Your task to perform on an android device: toggle notification dots Image 0: 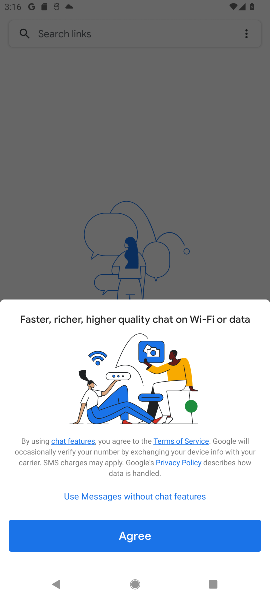
Step 0: press back button
Your task to perform on an android device: toggle notification dots Image 1: 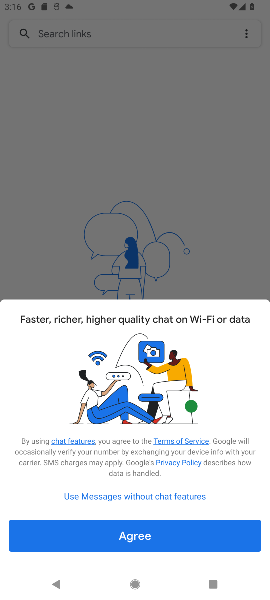
Step 1: press back button
Your task to perform on an android device: toggle notification dots Image 2: 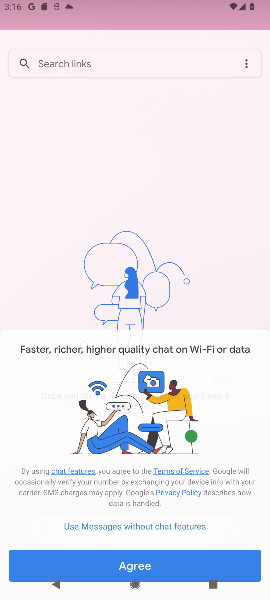
Step 2: press back button
Your task to perform on an android device: toggle notification dots Image 3: 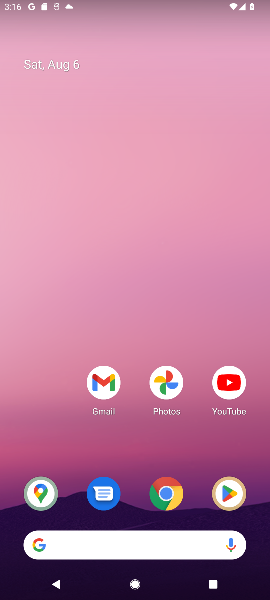
Step 3: press home button
Your task to perform on an android device: toggle notification dots Image 4: 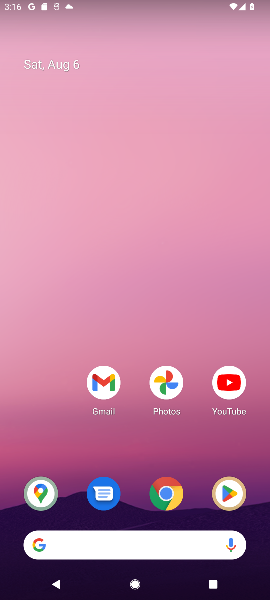
Step 4: drag from (160, 452) to (115, 106)
Your task to perform on an android device: toggle notification dots Image 5: 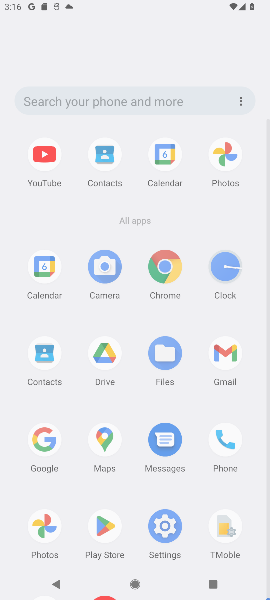
Step 5: drag from (153, 460) to (137, 196)
Your task to perform on an android device: toggle notification dots Image 6: 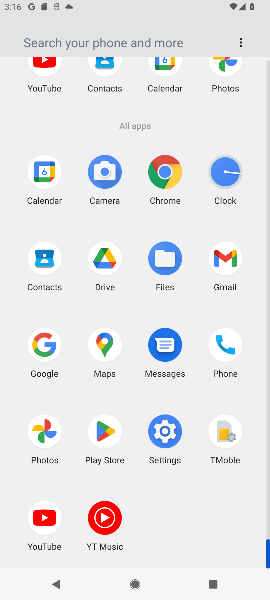
Step 6: click (149, 430)
Your task to perform on an android device: toggle notification dots Image 7: 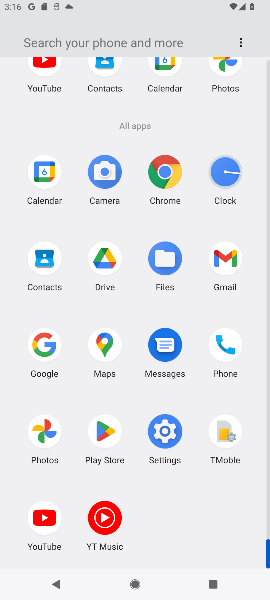
Step 7: click (153, 430)
Your task to perform on an android device: toggle notification dots Image 8: 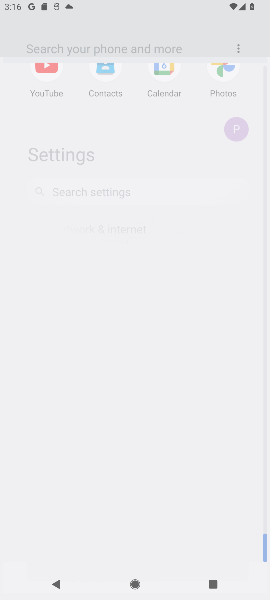
Step 8: click (171, 443)
Your task to perform on an android device: toggle notification dots Image 9: 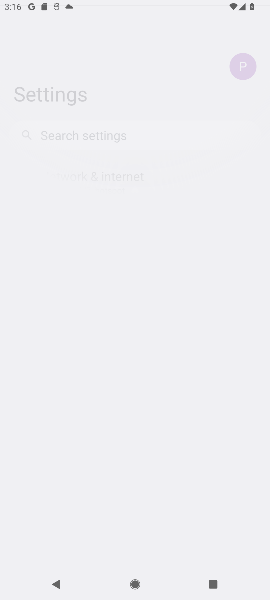
Step 9: click (185, 452)
Your task to perform on an android device: toggle notification dots Image 10: 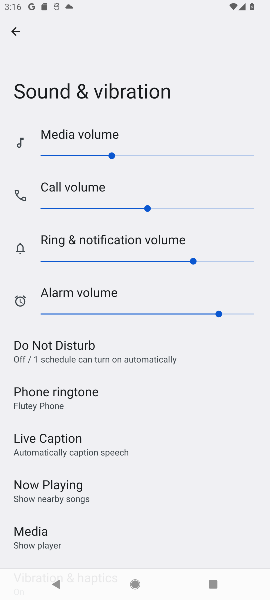
Step 10: click (12, 25)
Your task to perform on an android device: toggle notification dots Image 11: 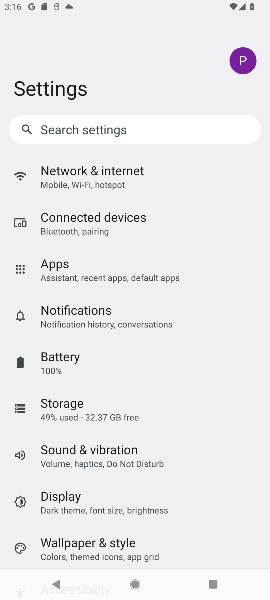
Step 11: click (64, 313)
Your task to perform on an android device: toggle notification dots Image 12: 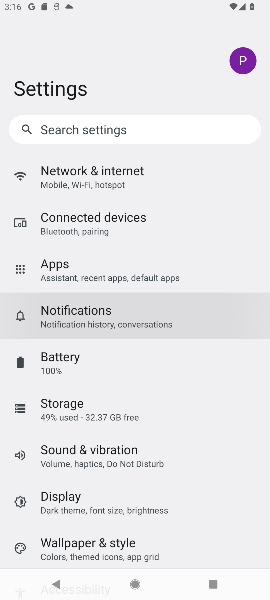
Step 12: click (68, 317)
Your task to perform on an android device: toggle notification dots Image 13: 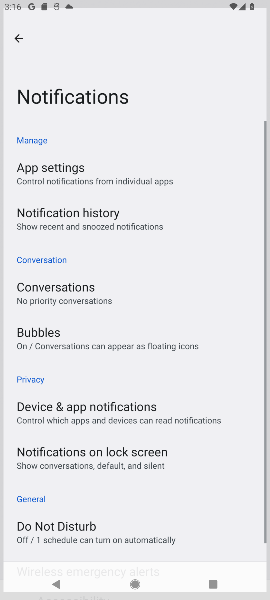
Step 13: click (70, 318)
Your task to perform on an android device: toggle notification dots Image 14: 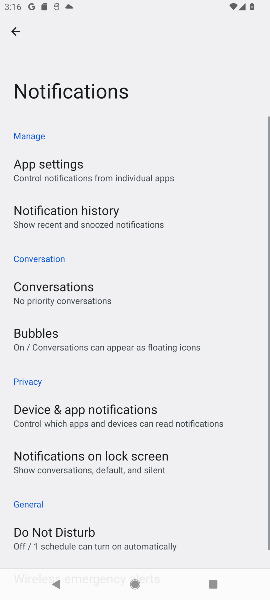
Step 14: click (77, 319)
Your task to perform on an android device: toggle notification dots Image 15: 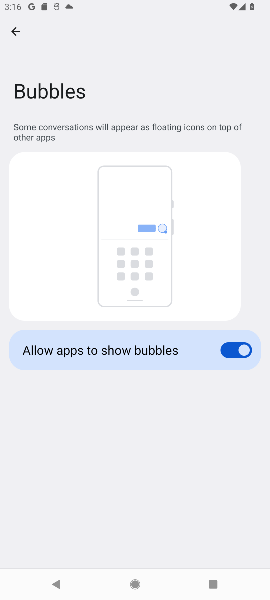
Step 15: click (7, 31)
Your task to perform on an android device: toggle notification dots Image 16: 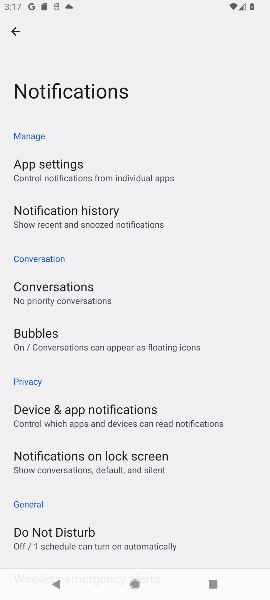
Step 16: drag from (75, 365) to (54, 118)
Your task to perform on an android device: toggle notification dots Image 17: 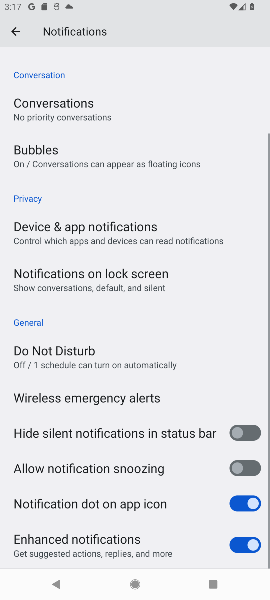
Step 17: drag from (99, 362) to (118, 178)
Your task to perform on an android device: toggle notification dots Image 18: 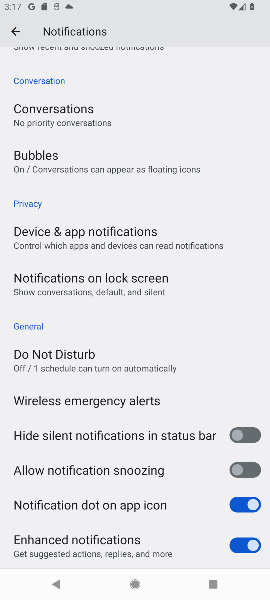
Step 18: click (251, 506)
Your task to perform on an android device: toggle notification dots Image 19: 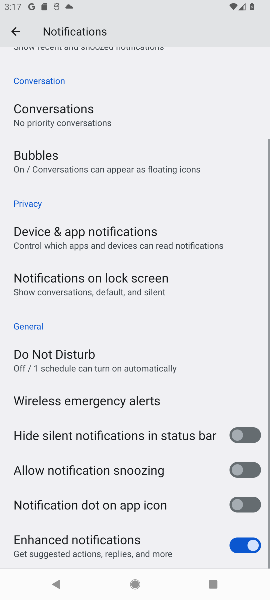
Step 19: task complete